Your task to perform on an android device: check google app version Image 0: 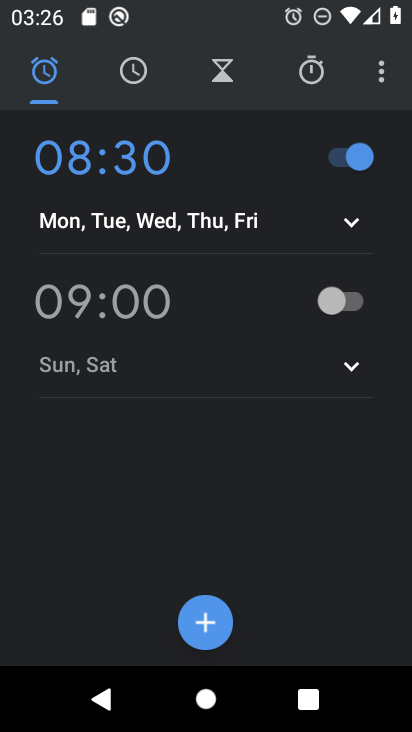
Step 0: press home button
Your task to perform on an android device: check google app version Image 1: 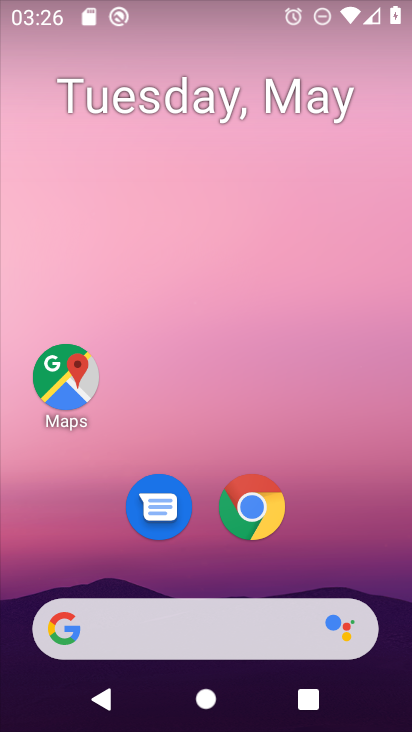
Step 1: drag from (203, 569) to (249, 245)
Your task to perform on an android device: check google app version Image 2: 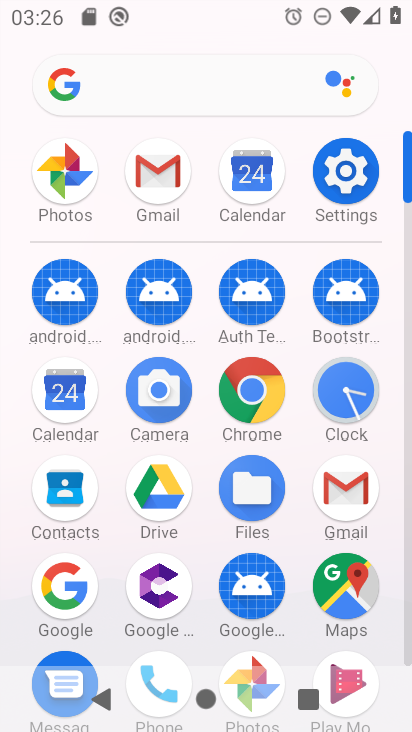
Step 2: click (83, 568)
Your task to perform on an android device: check google app version Image 3: 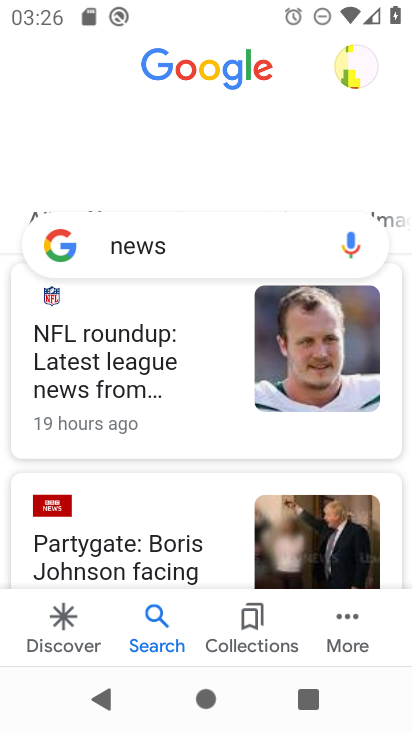
Step 3: click (337, 619)
Your task to perform on an android device: check google app version Image 4: 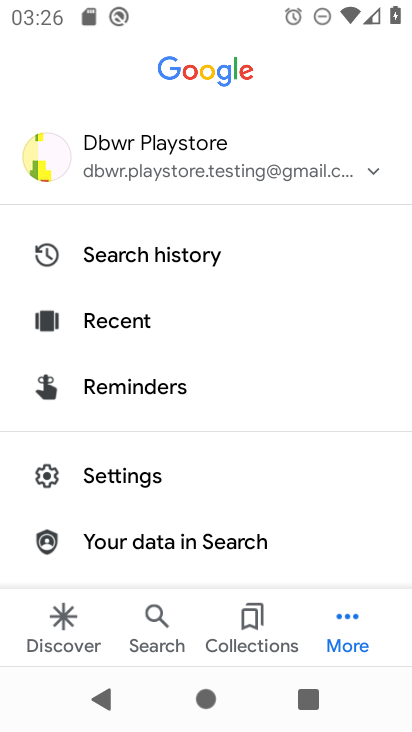
Step 4: click (199, 471)
Your task to perform on an android device: check google app version Image 5: 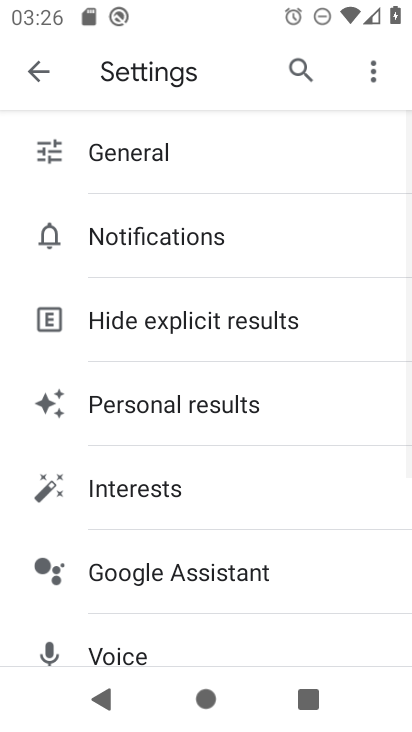
Step 5: drag from (200, 570) to (242, 281)
Your task to perform on an android device: check google app version Image 6: 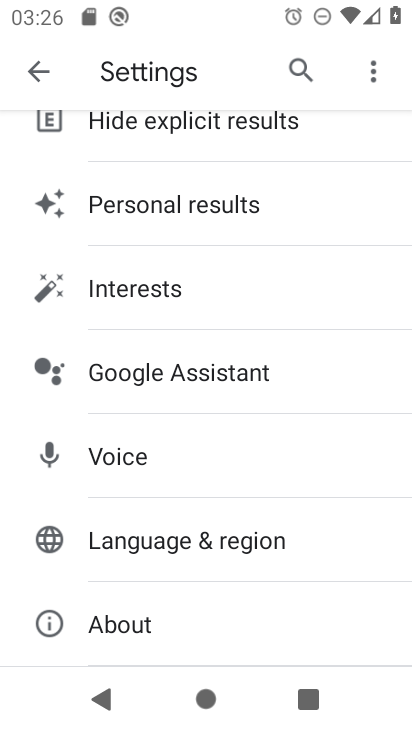
Step 6: drag from (193, 597) to (220, 431)
Your task to perform on an android device: check google app version Image 7: 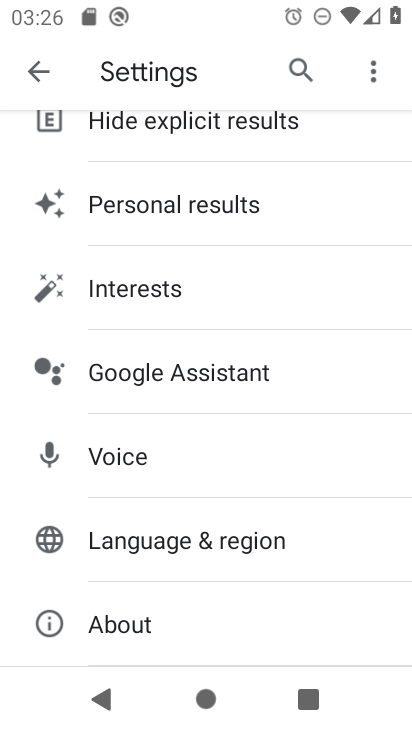
Step 7: click (242, 596)
Your task to perform on an android device: check google app version Image 8: 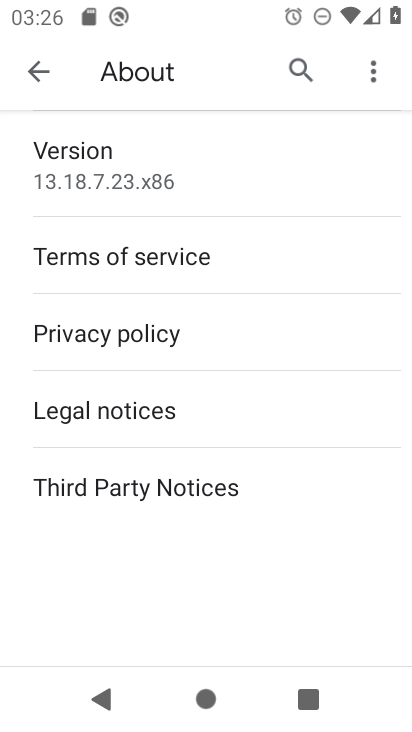
Step 8: click (217, 186)
Your task to perform on an android device: check google app version Image 9: 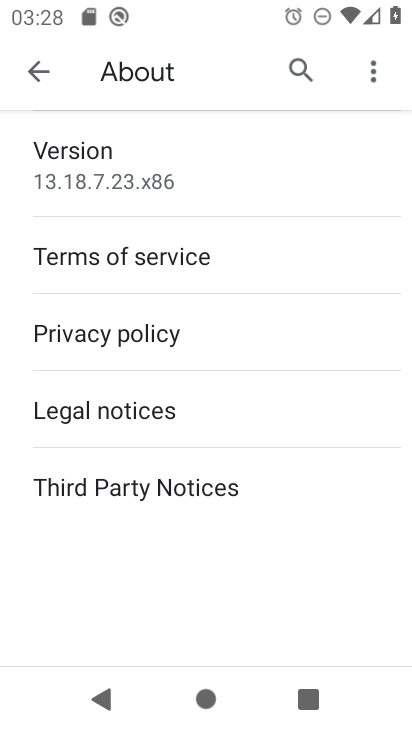
Step 9: click (112, 153)
Your task to perform on an android device: check google app version Image 10: 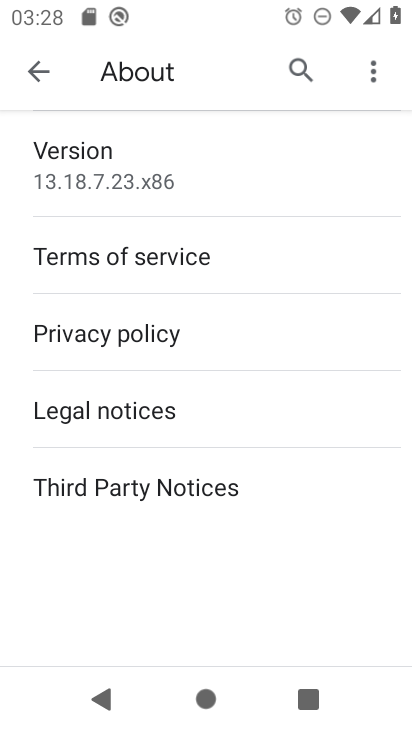
Step 10: task complete